Your task to perform on an android device: turn on priority inbox in the gmail app Image 0: 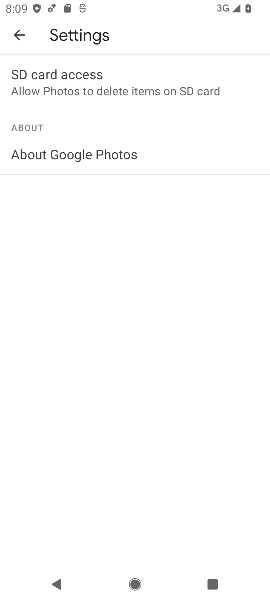
Step 0: press home button
Your task to perform on an android device: turn on priority inbox in the gmail app Image 1: 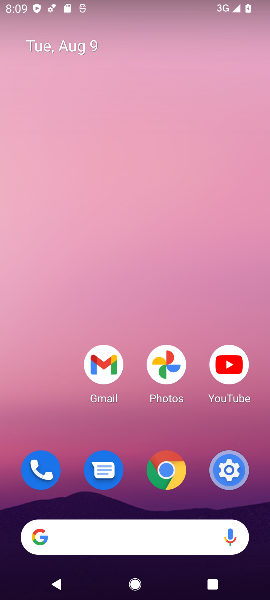
Step 1: drag from (108, 546) to (145, 128)
Your task to perform on an android device: turn on priority inbox in the gmail app Image 2: 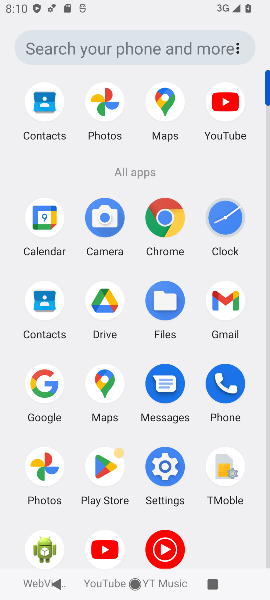
Step 2: click (223, 300)
Your task to perform on an android device: turn on priority inbox in the gmail app Image 3: 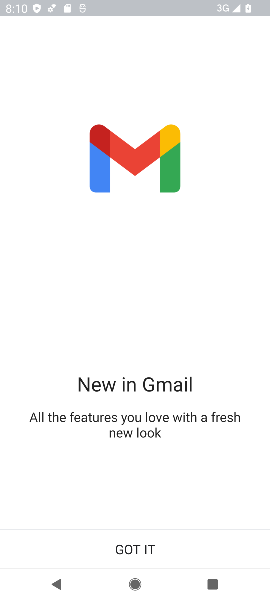
Step 3: click (135, 544)
Your task to perform on an android device: turn on priority inbox in the gmail app Image 4: 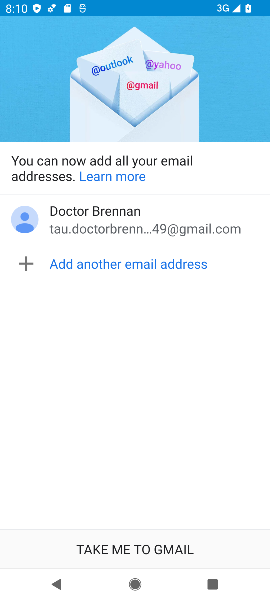
Step 4: click (135, 544)
Your task to perform on an android device: turn on priority inbox in the gmail app Image 5: 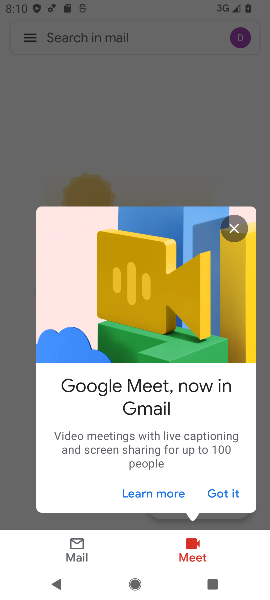
Step 5: click (224, 496)
Your task to perform on an android device: turn on priority inbox in the gmail app Image 6: 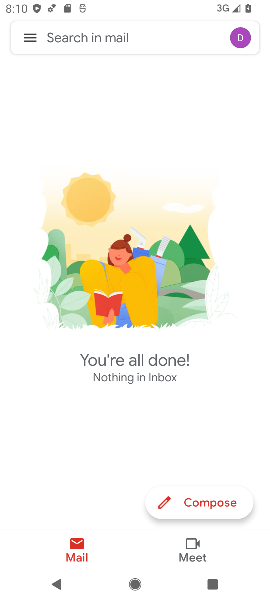
Step 6: click (28, 39)
Your task to perform on an android device: turn on priority inbox in the gmail app Image 7: 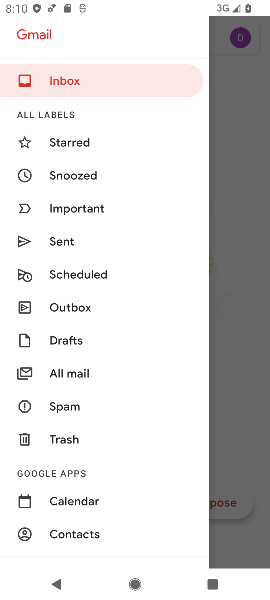
Step 7: drag from (63, 456) to (76, 326)
Your task to perform on an android device: turn on priority inbox in the gmail app Image 8: 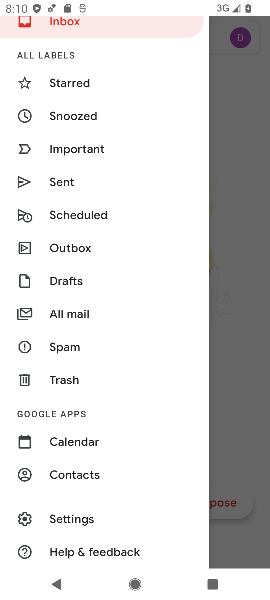
Step 8: click (78, 518)
Your task to perform on an android device: turn on priority inbox in the gmail app Image 9: 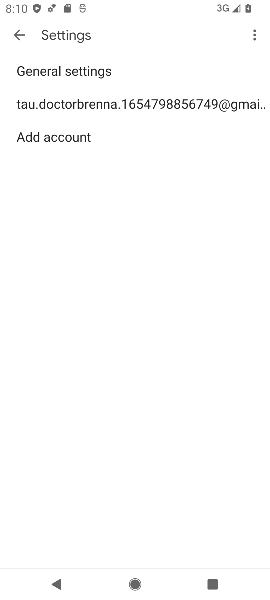
Step 9: click (95, 107)
Your task to perform on an android device: turn on priority inbox in the gmail app Image 10: 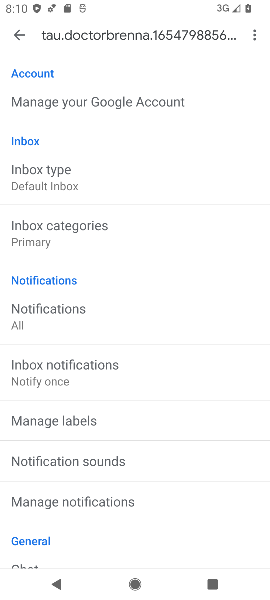
Step 10: click (50, 178)
Your task to perform on an android device: turn on priority inbox in the gmail app Image 11: 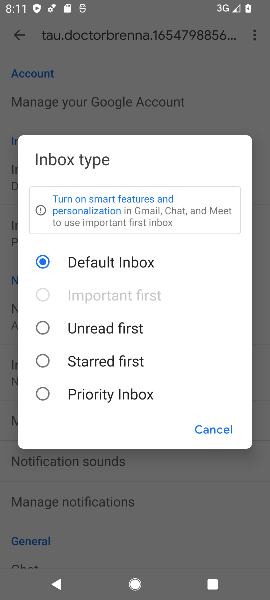
Step 11: click (49, 395)
Your task to perform on an android device: turn on priority inbox in the gmail app Image 12: 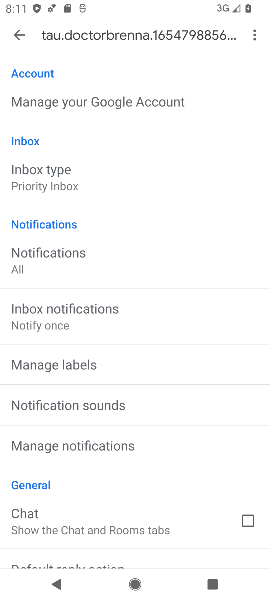
Step 12: task complete